Your task to perform on an android device: turn off javascript in the chrome app Image 0: 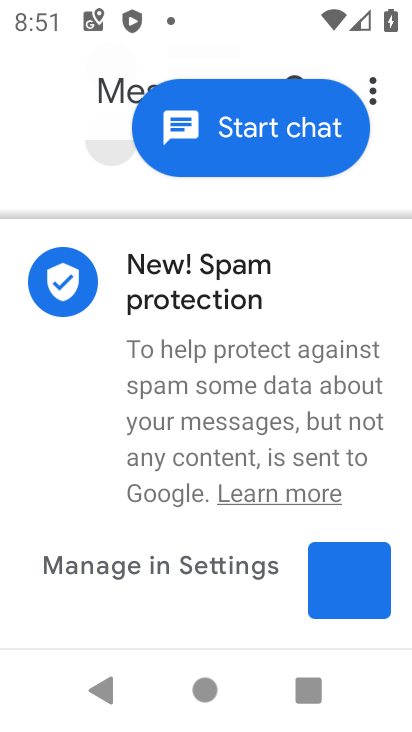
Step 0: press home button
Your task to perform on an android device: turn off javascript in the chrome app Image 1: 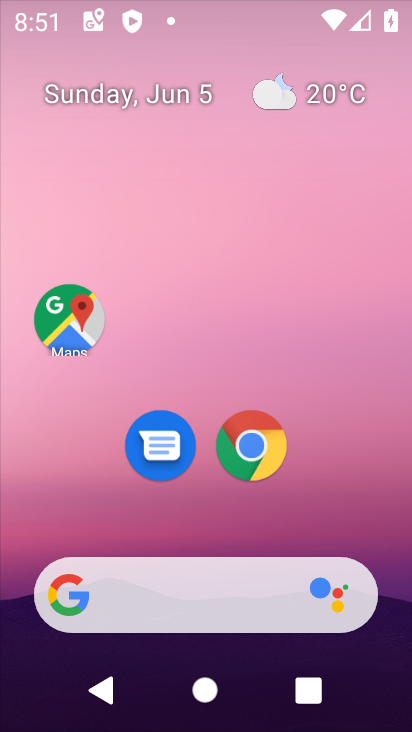
Step 1: drag from (229, 617) to (285, 21)
Your task to perform on an android device: turn off javascript in the chrome app Image 2: 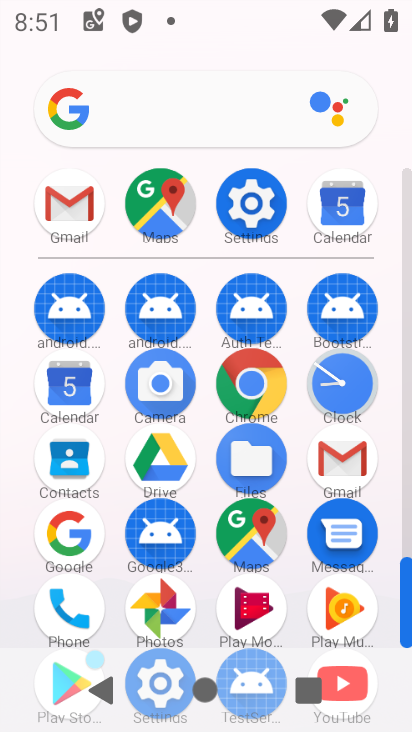
Step 2: click (261, 381)
Your task to perform on an android device: turn off javascript in the chrome app Image 3: 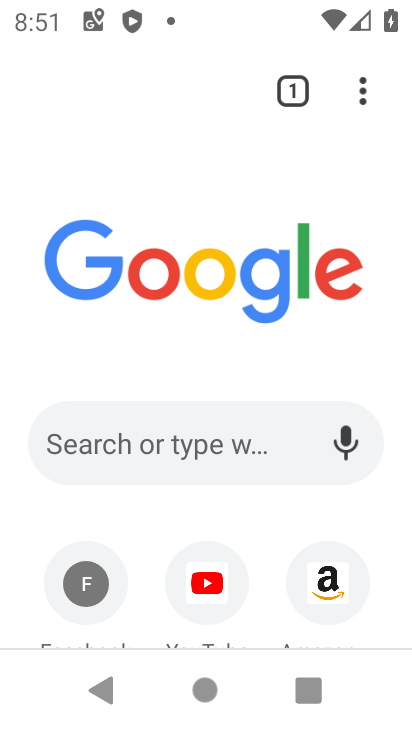
Step 3: drag from (367, 88) to (248, 503)
Your task to perform on an android device: turn off javascript in the chrome app Image 4: 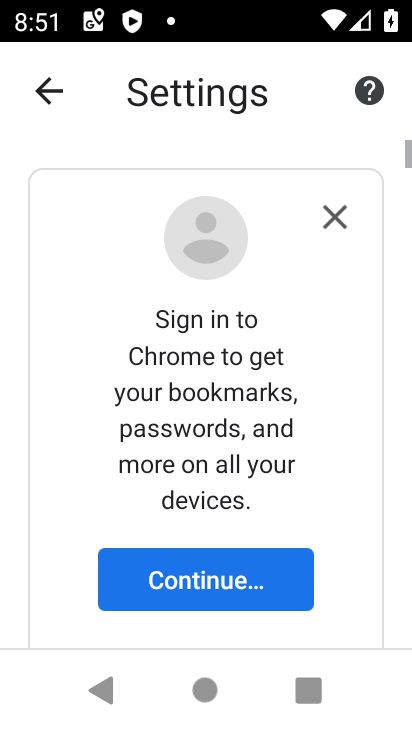
Step 4: drag from (308, 599) to (338, 20)
Your task to perform on an android device: turn off javascript in the chrome app Image 5: 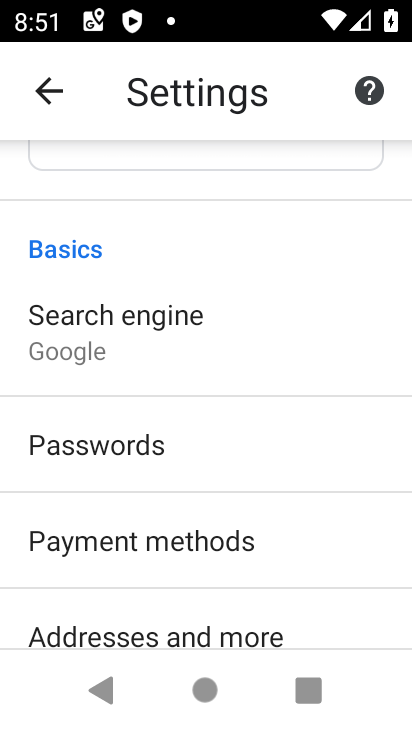
Step 5: drag from (310, 606) to (408, 90)
Your task to perform on an android device: turn off javascript in the chrome app Image 6: 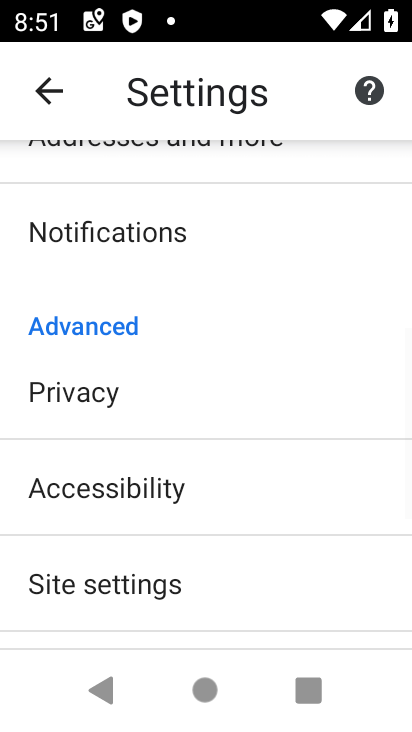
Step 6: drag from (333, 601) to (386, 243)
Your task to perform on an android device: turn off javascript in the chrome app Image 7: 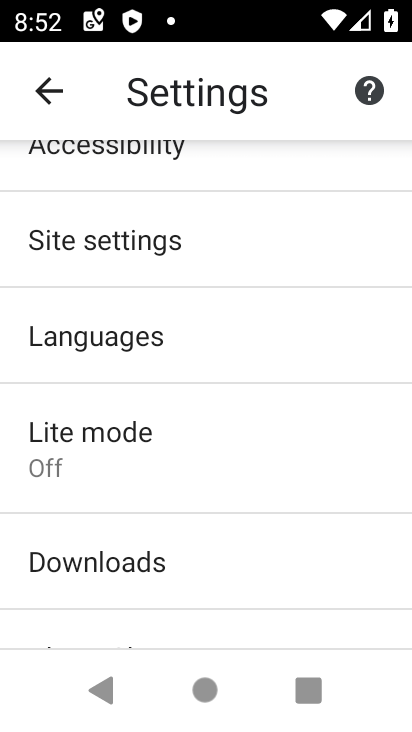
Step 7: click (224, 269)
Your task to perform on an android device: turn off javascript in the chrome app Image 8: 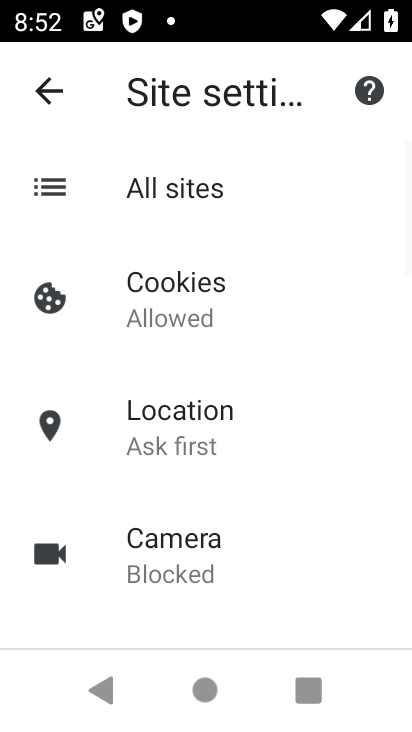
Step 8: drag from (233, 537) to (255, 135)
Your task to perform on an android device: turn off javascript in the chrome app Image 9: 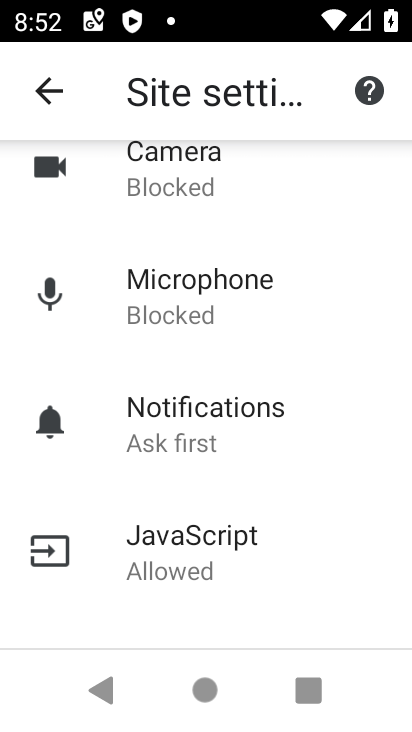
Step 9: click (244, 570)
Your task to perform on an android device: turn off javascript in the chrome app Image 10: 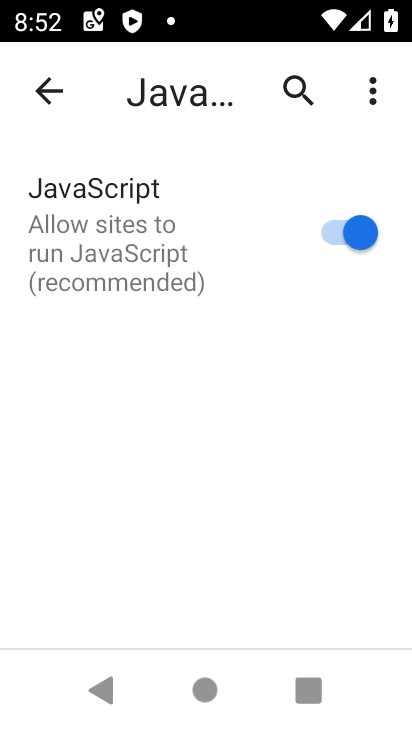
Step 10: click (346, 222)
Your task to perform on an android device: turn off javascript in the chrome app Image 11: 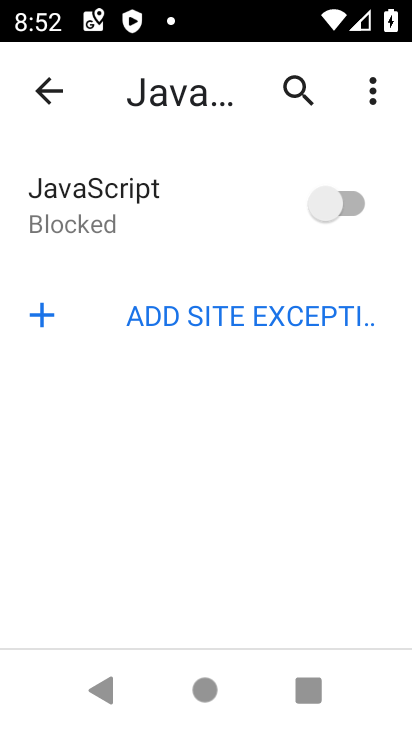
Step 11: task complete